Your task to perform on an android device: toggle sleep mode Image 0: 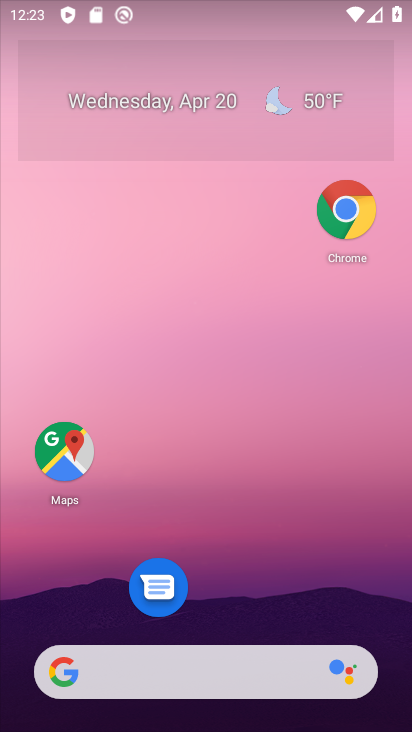
Step 0: drag from (243, 605) to (255, 9)
Your task to perform on an android device: toggle sleep mode Image 1: 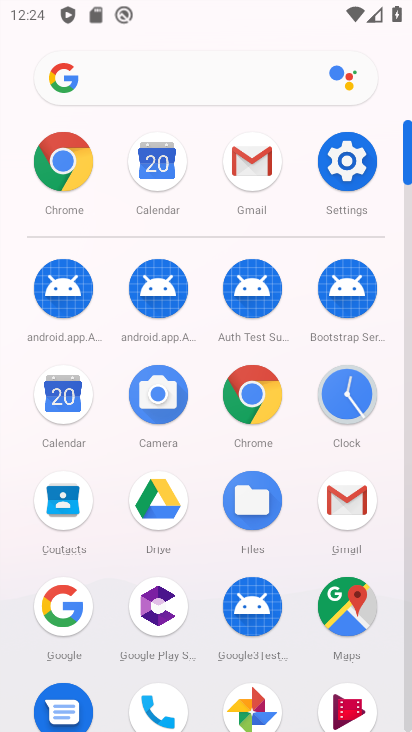
Step 1: click (346, 171)
Your task to perform on an android device: toggle sleep mode Image 2: 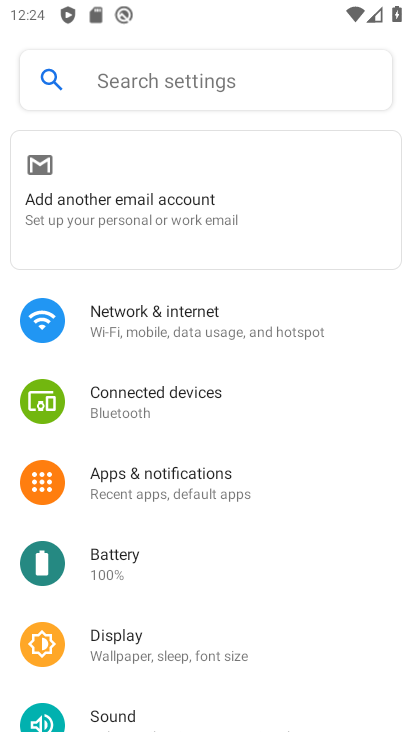
Step 2: click (199, 76)
Your task to perform on an android device: toggle sleep mode Image 3: 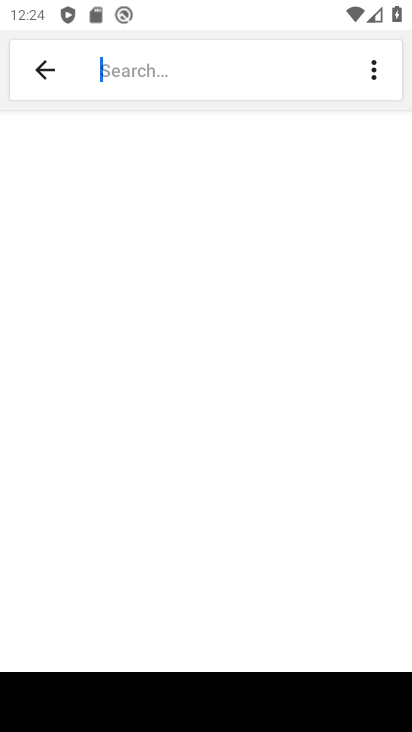
Step 3: type "sleep mode"
Your task to perform on an android device: toggle sleep mode Image 4: 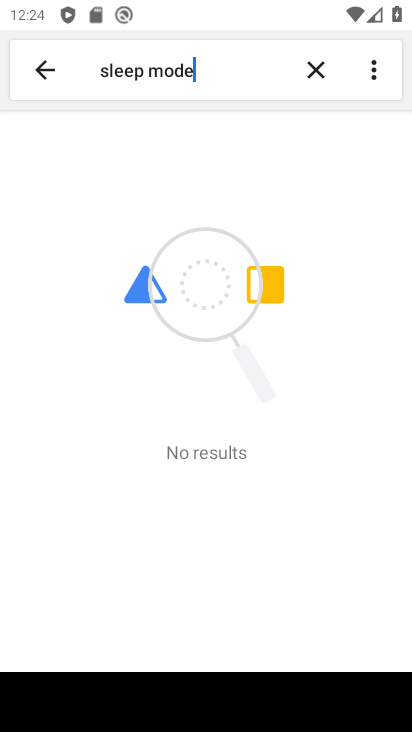
Step 4: task complete